Your task to perform on an android device: Do I have any events this weekend? Image 0: 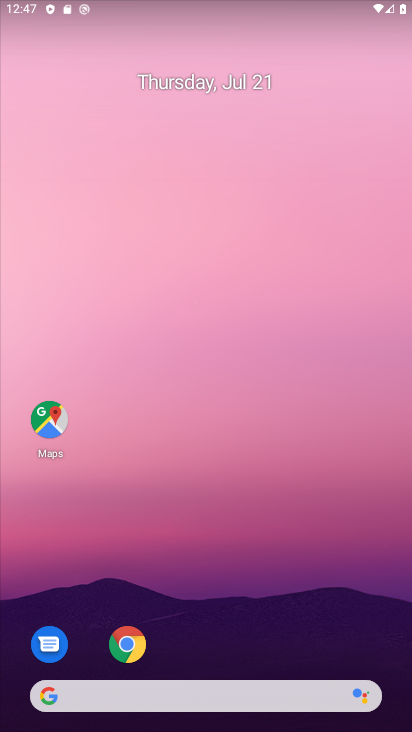
Step 0: drag from (175, 675) to (163, 159)
Your task to perform on an android device: Do I have any events this weekend? Image 1: 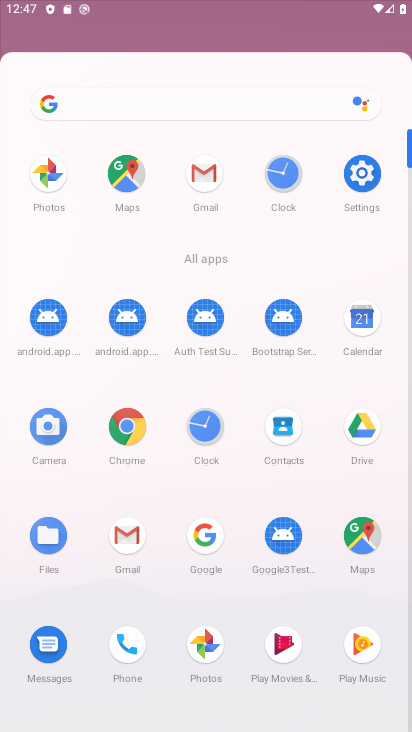
Step 1: drag from (196, 588) to (121, 55)
Your task to perform on an android device: Do I have any events this weekend? Image 2: 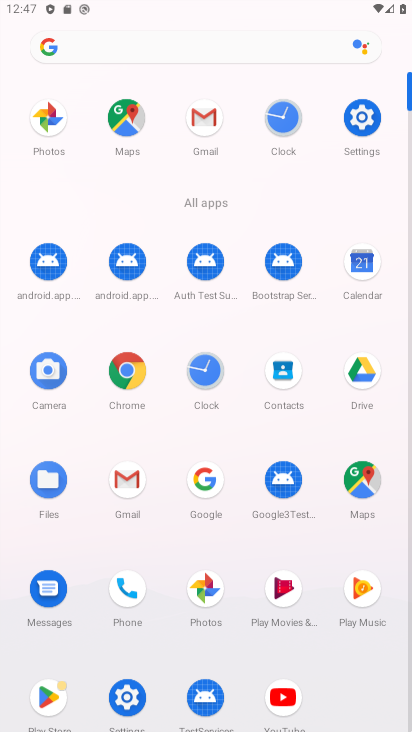
Step 2: click (149, 147)
Your task to perform on an android device: Do I have any events this weekend? Image 3: 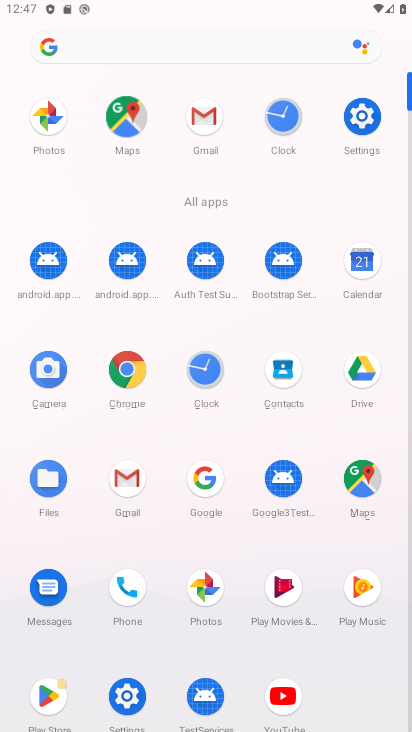
Step 3: drag from (182, 621) to (163, 292)
Your task to perform on an android device: Do I have any events this weekend? Image 4: 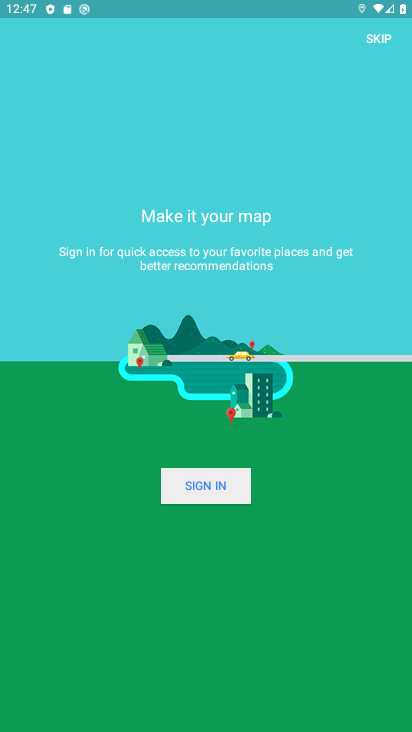
Step 4: click (358, 270)
Your task to perform on an android device: Do I have any events this weekend? Image 5: 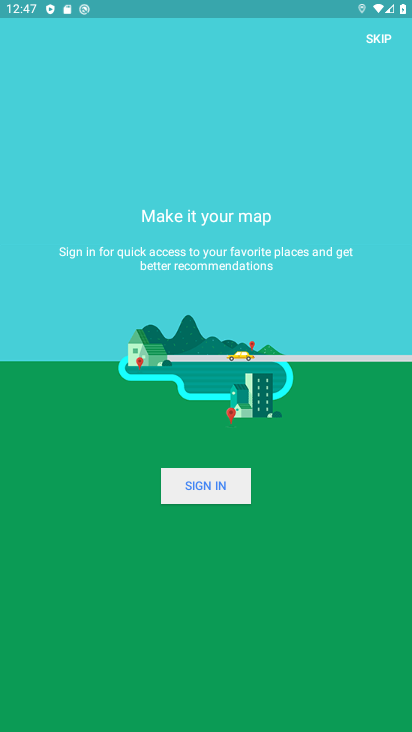
Step 5: press back button
Your task to perform on an android device: Do I have any events this weekend? Image 6: 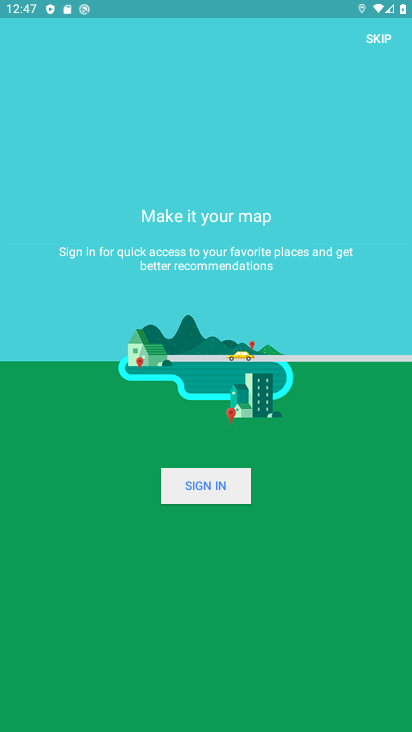
Step 6: press back button
Your task to perform on an android device: Do I have any events this weekend? Image 7: 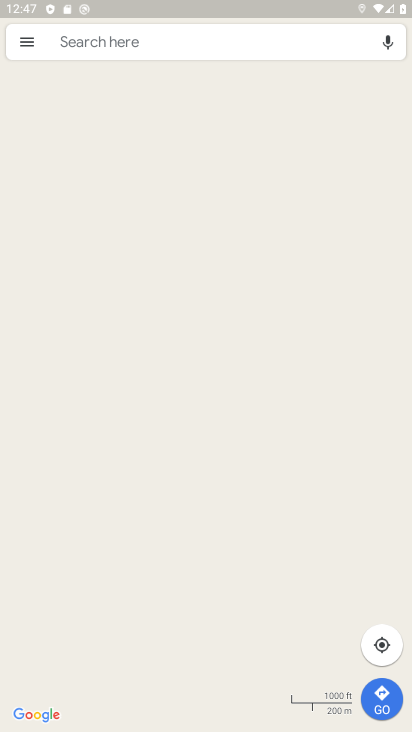
Step 7: click (372, 31)
Your task to perform on an android device: Do I have any events this weekend? Image 8: 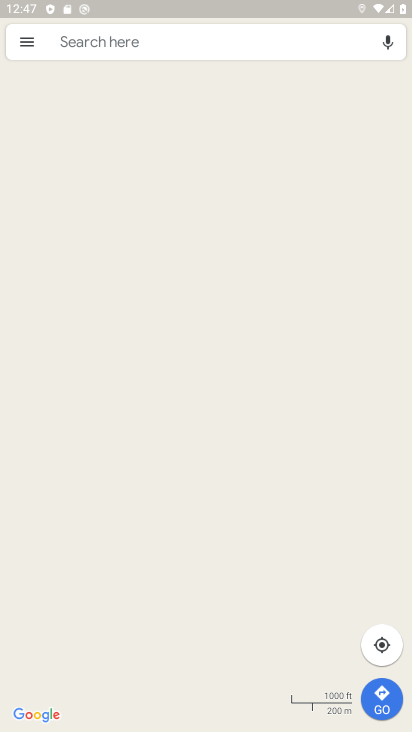
Step 8: click (372, 28)
Your task to perform on an android device: Do I have any events this weekend? Image 9: 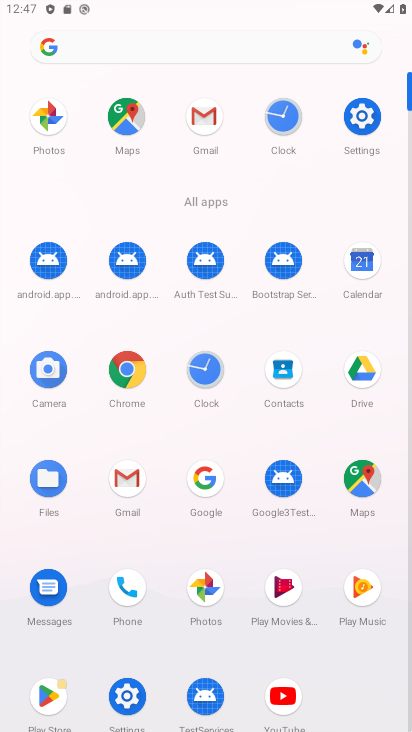
Step 9: click (363, 256)
Your task to perform on an android device: Do I have any events this weekend? Image 10: 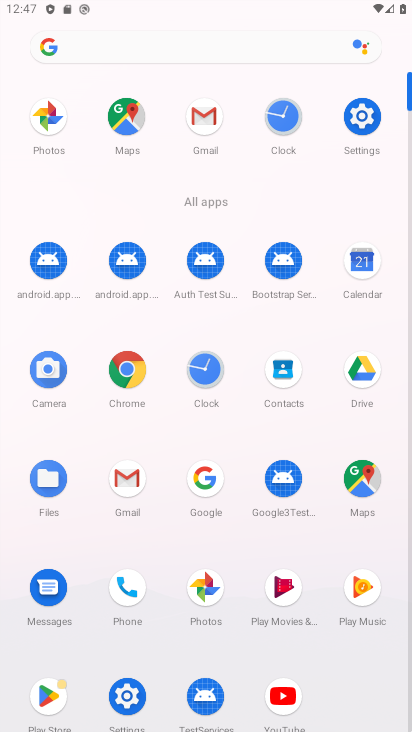
Step 10: click (364, 261)
Your task to perform on an android device: Do I have any events this weekend? Image 11: 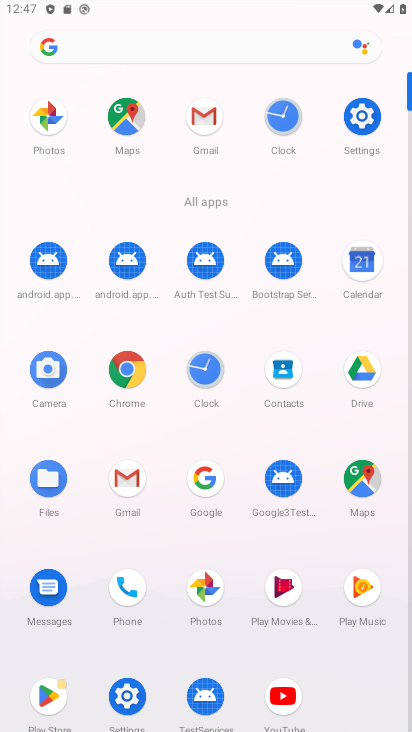
Step 11: click (376, 268)
Your task to perform on an android device: Do I have any events this weekend? Image 12: 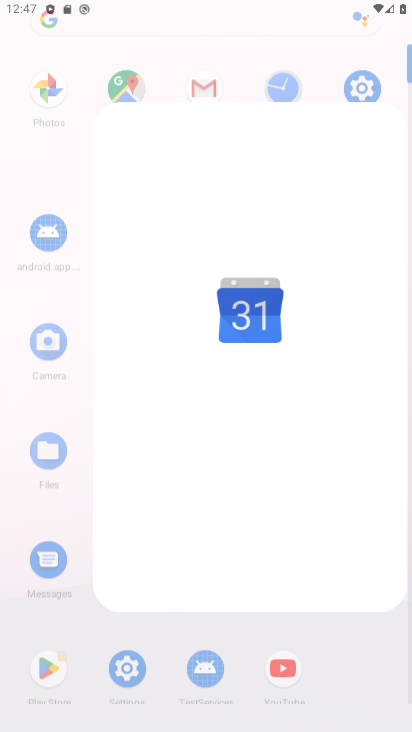
Step 12: click (376, 268)
Your task to perform on an android device: Do I have any events this weekend? Image 13: 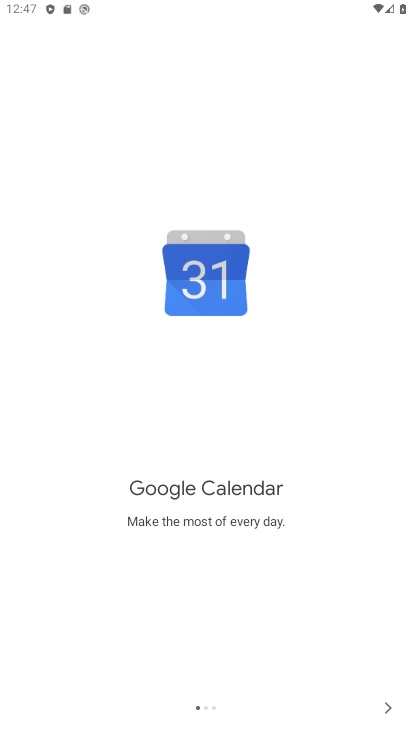
Step 13: click (385, 705)
Your task to perform on an android device: Do I have any events this weekend? Image 14: 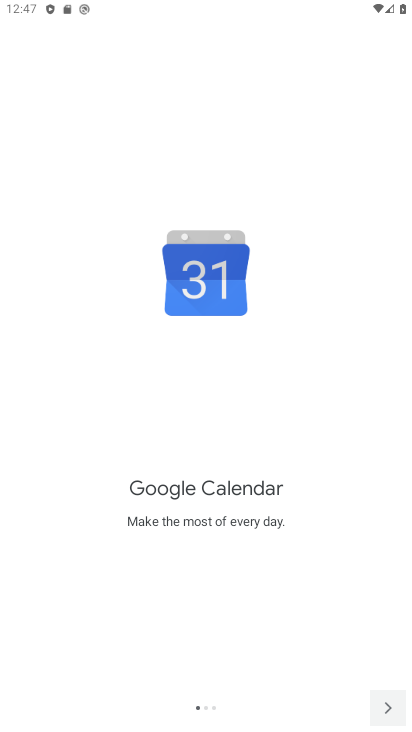
Step 14: click (387, 704)
Your task to perform on an android device: Do I have any events this weekend? Image 15: 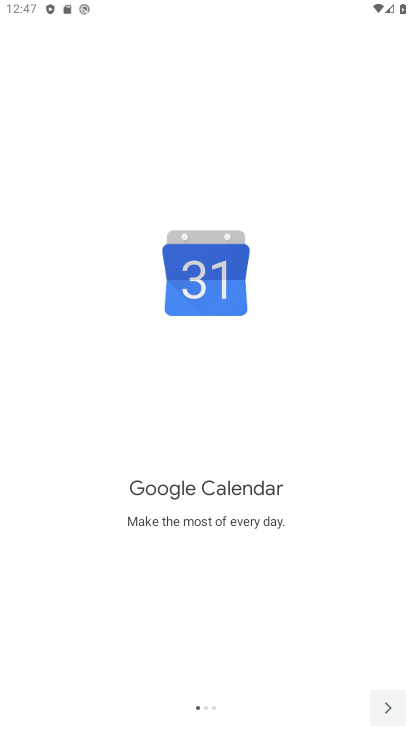
Step 15: click (387, 703)
Your task to perform on an android device: Do I have any events this weekend? Image 16: 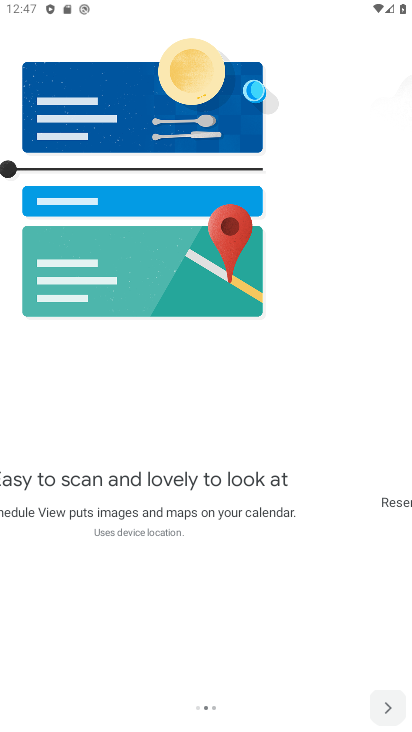
Step 16: click (387, 703)
Your task to perform on an android device: Do I have any events this weekend? Image 17: 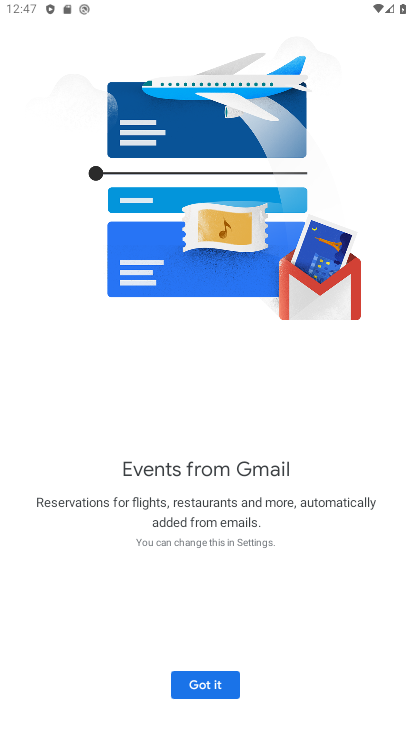
Step 17: click (387, 703)
Your task to perform on an android device: Do I have any events this weekend? Image 18: 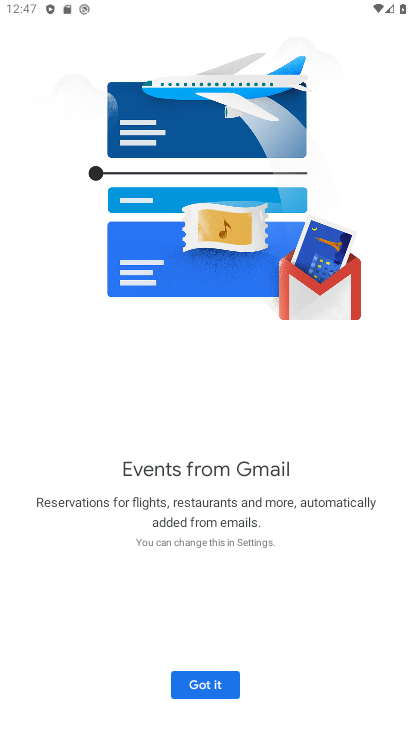
Step 18: click (211, 691)
Your task to perform on an android device: Do I have any events this weekend? Image 19: 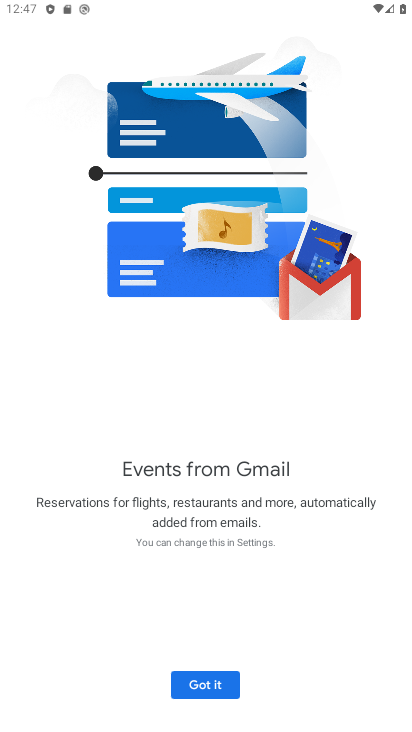
Step 19: click (208, 686)
Your task to perform on an android device: Do I have any events this weekend? Image 20: 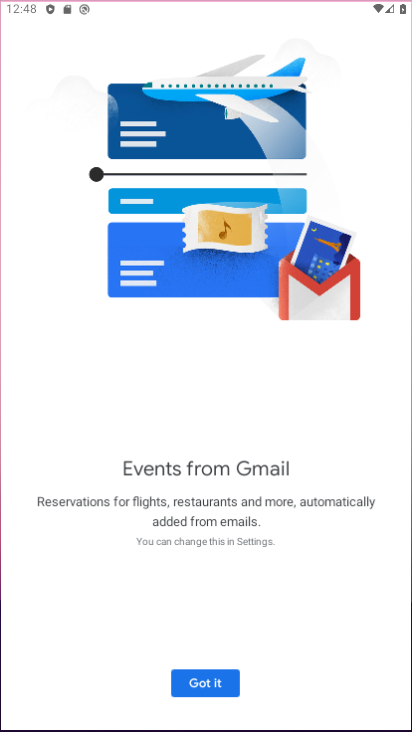
Step 20: click (209, 686)
Your task to perform on an android device: Do I have any events this weekend? Image 21: 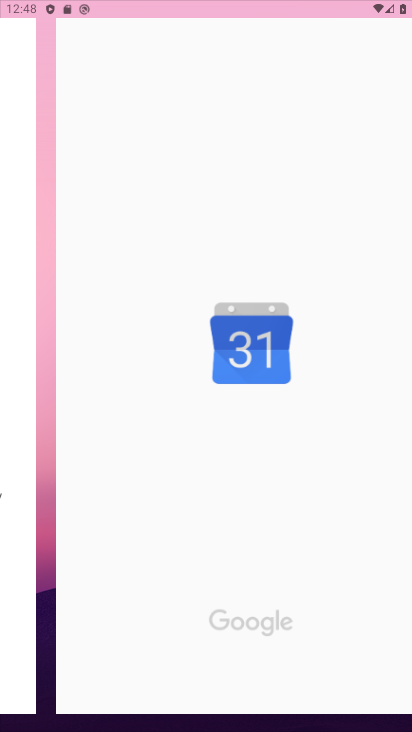
Step 21: click (210, 687)
Your task to perform on an android device: Do I have any events this weekend? Image 22: 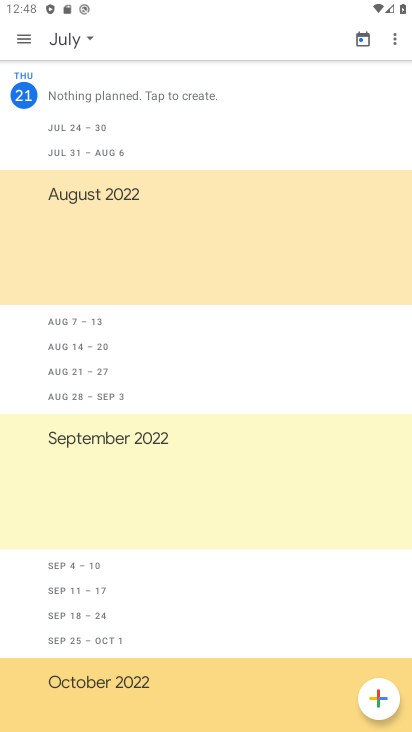
Step 22: click (94, 37)
Your task to perform on an android device: Do I have any events this weekend? Image 23: 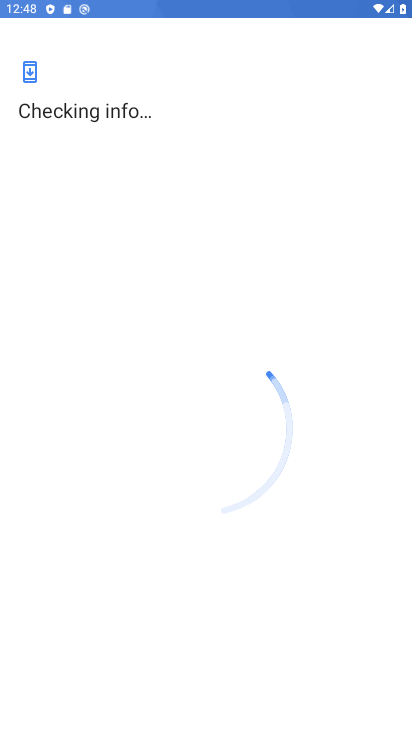
Step 23: task complete